Your task to perform on an android device: clear all cookies in the chrome app Image 0: 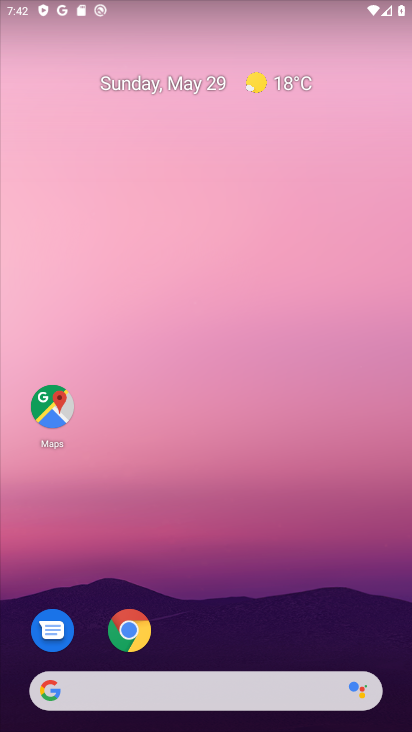
Step 0: click (195, 18)
Your task to perform on an android device: clear all cookies in the chrome app Image 1: 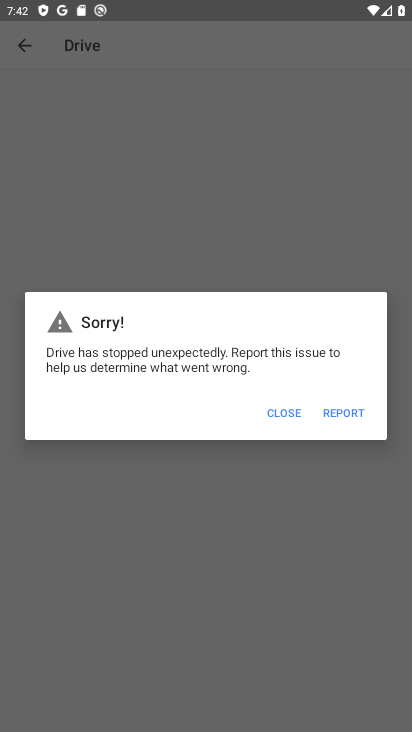
Step 1: press home button
Your task to perform on an android device: clear all cookies in the chrome app Image 2: 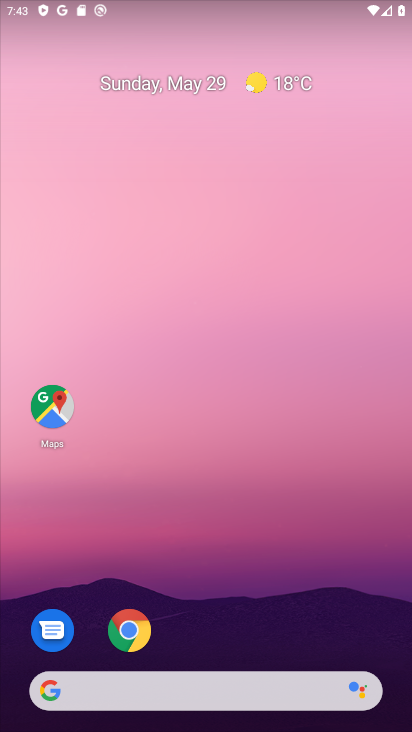
Step 2: click (130, 628)
Your task to perform on an android device: clear all cookies in the chrome app Image 3: 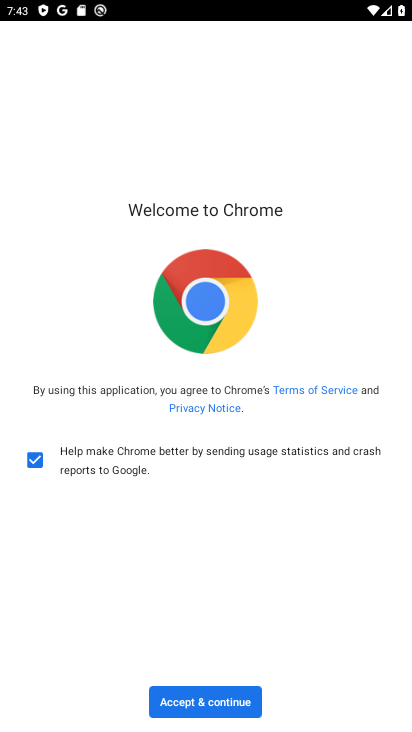
Step 3: click (171, 696)
Your task to perform on an android device: clear all cookies in the chrome app Image 4: 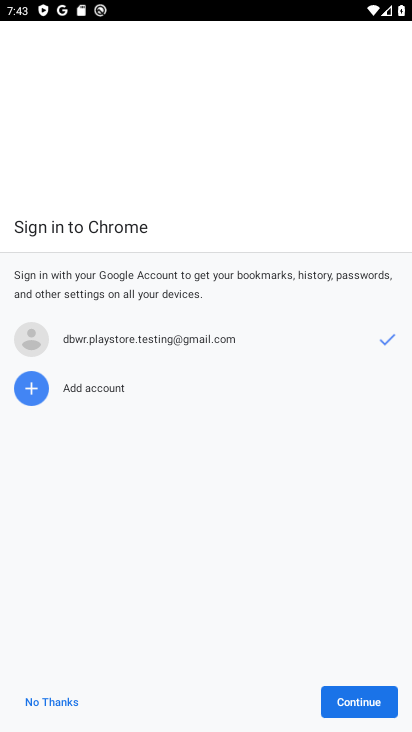
Step 4: click (358, 710)
Your task to perform on an android device: clear all cookies in the chrome app Image 5: 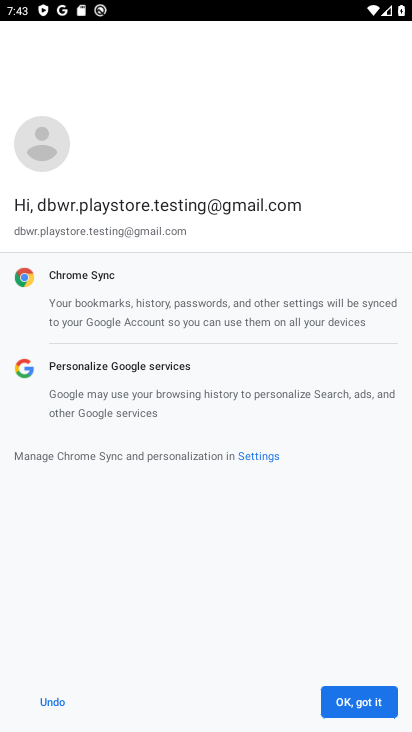
Step 5: click (358, 710)
Your task to perform on an android device: clear all cookies in the chrome app Image 6: 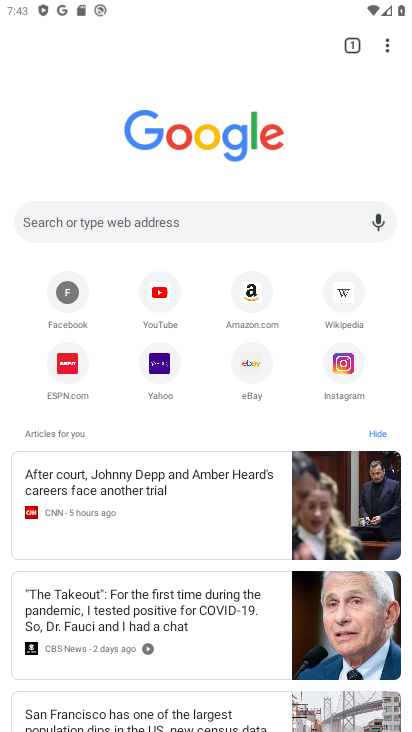
Step 6: click (387, 51)
Your task to perform on an android device: clear all cookies in the chrome app Image 7: 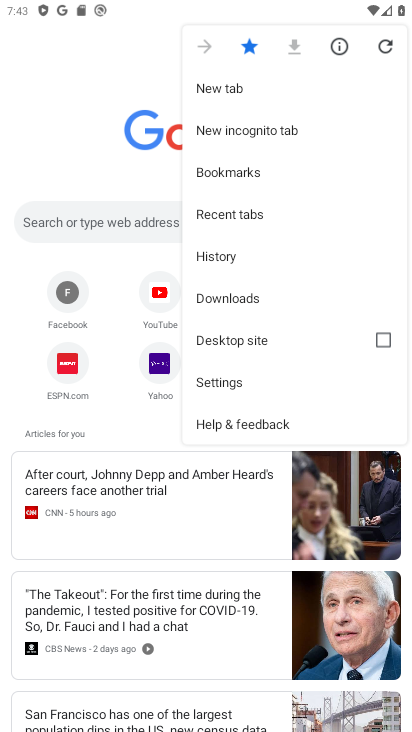
Step 7: click (227, 254)
Your task to perform on an android device: clear all cookies in the chrome app Image 8: 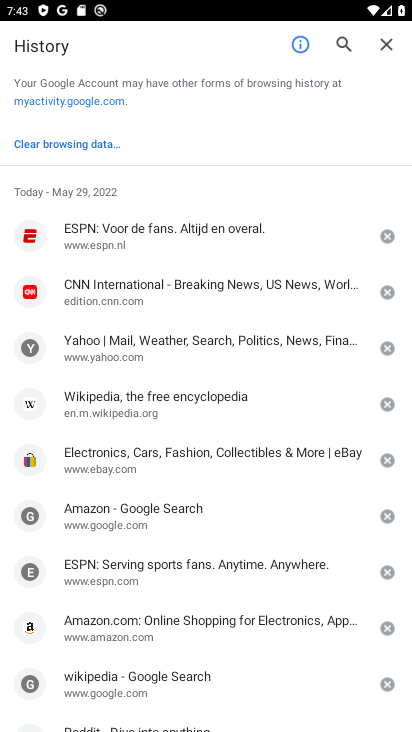
Step 8: click (63, 144)
Your task to perform on an android device: clear all cookies in the chrome app Image 9: 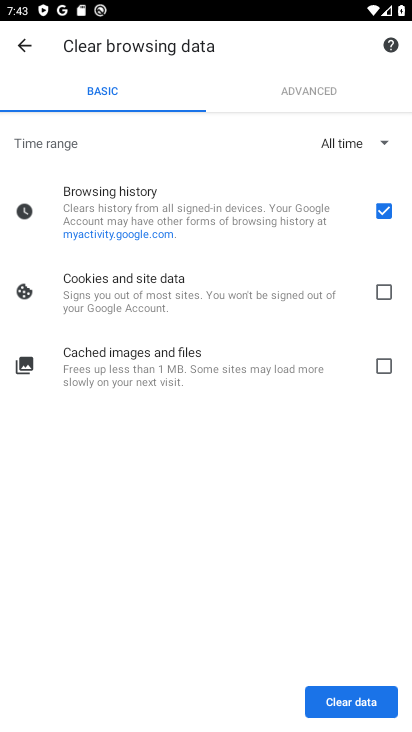
Step 9: click (385, 294)
Your task to perform on an android device: clear all cookies in the chrome app Image 10: 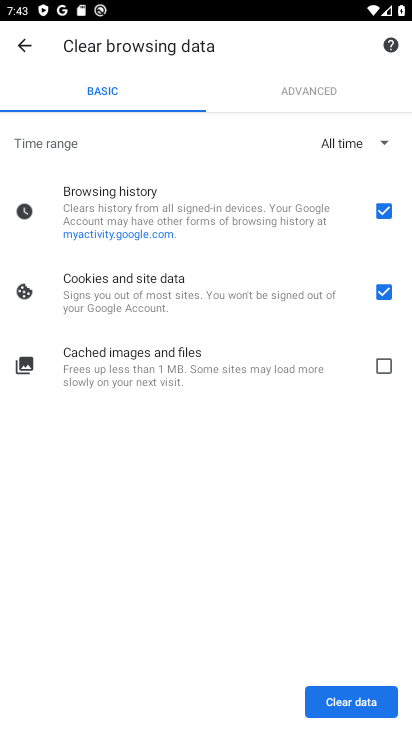
Step 10: click (388, 210)
Your task to perform on an android device: clear all cookies in the chrome app Image 11: 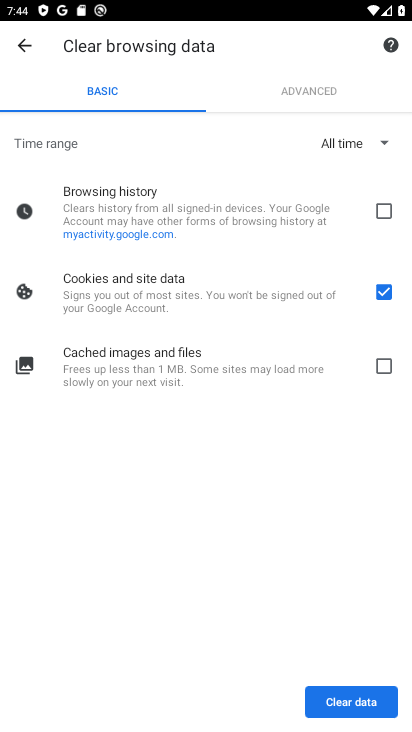
Step 11: click (330, 703)
Your task to perform on an android device: clear all cookies in the chrome app Image 12: 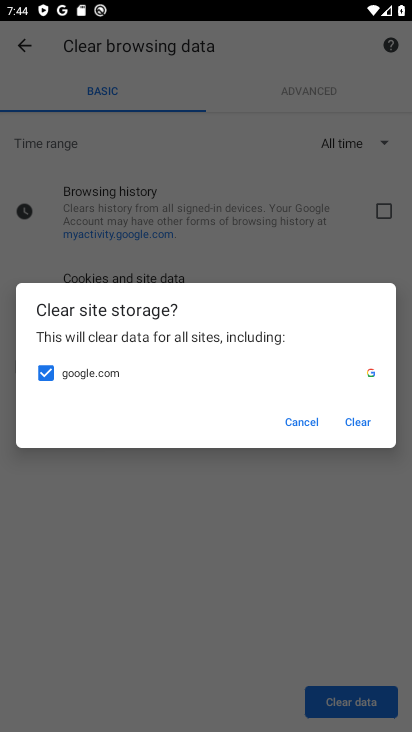
Step 12: click (367, 424)
Your task to perform on an android device: clear all cookies in the chrome app Image 13: 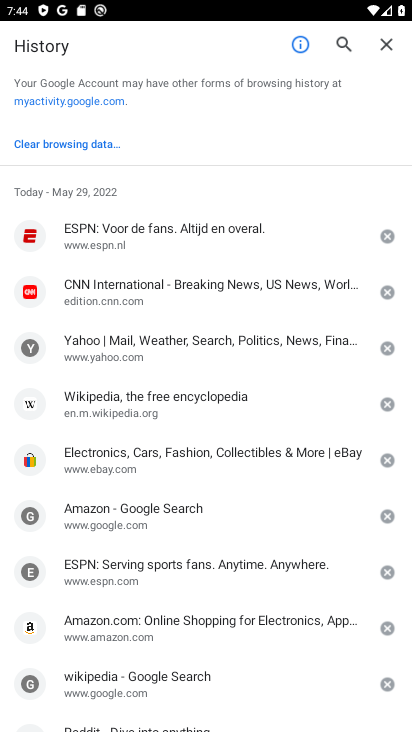
Step 13: task complete